Your task to perform on an android device: set an alarm Image 0: 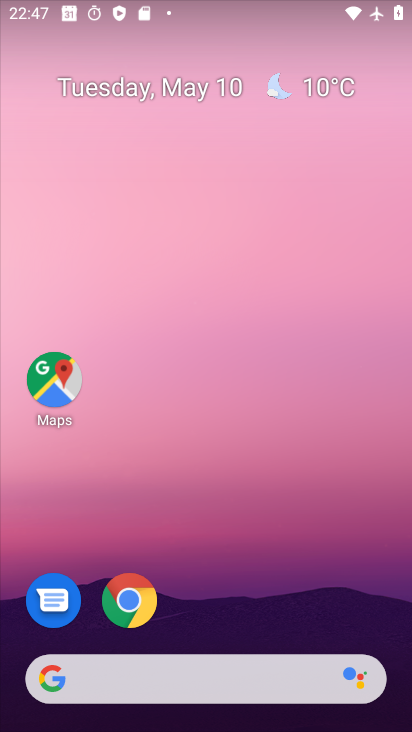
Step 0: drag from (322, 475) to (352, 163)
Your task to perform on an android device: set an alarm Image 1: 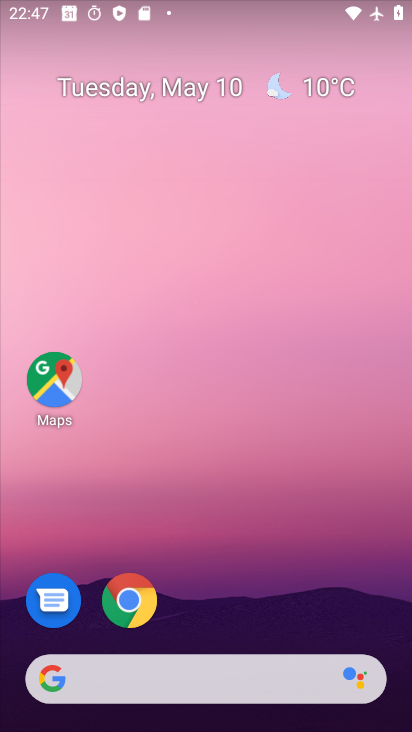
Step 1: drag from (310, 583) to (304, 68)
Your task to perform on an android device: set an alarm Image 2: 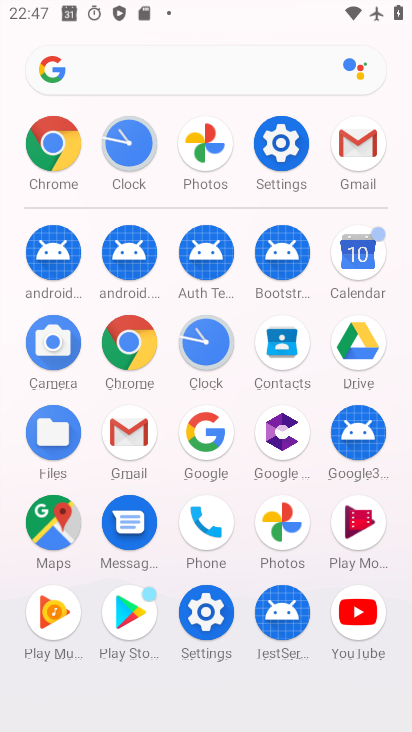
Step 2: click (201, 350)
Your task to perform on an android device: set an alarm Image 3: 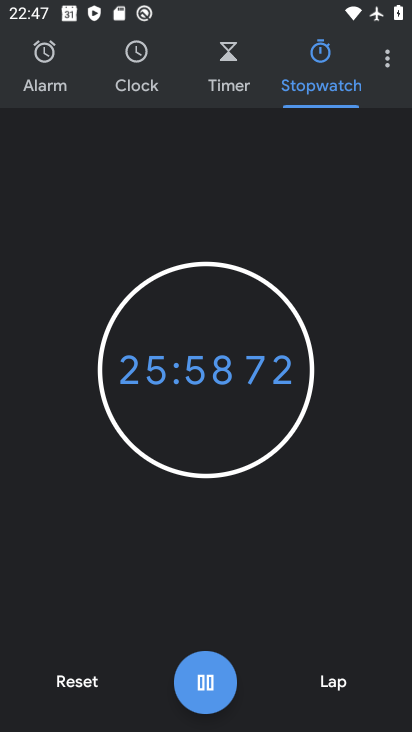
Step 3: click (58, 68)
Your task to perform on an android device: set an alarm Image 4: 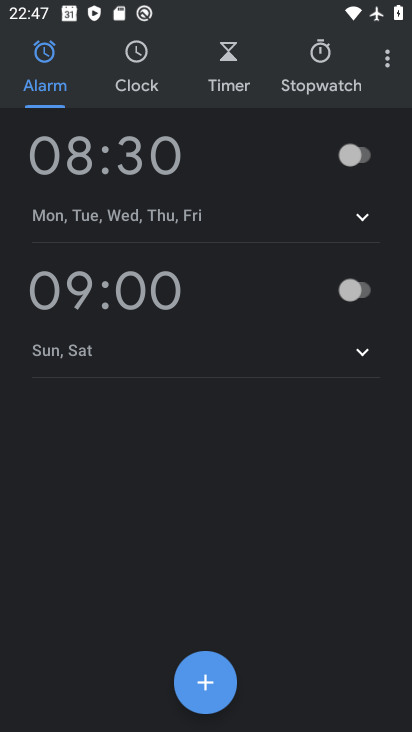
Step 4: click (354, 169)
Your task to perform on an android device: set an alarm Image 5: 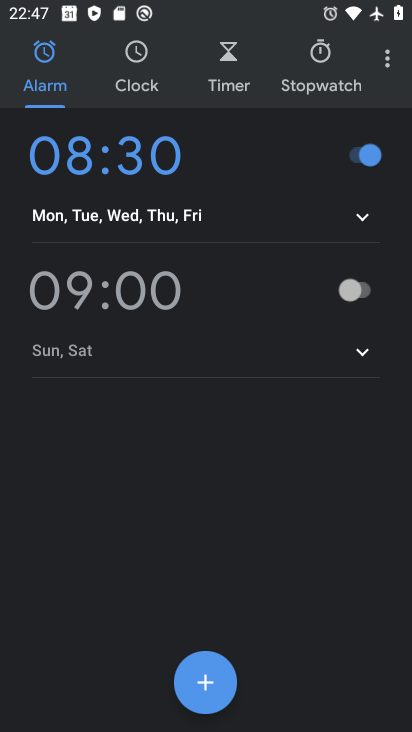
Step 5: task complete